Your task to perform on an android device: toggle pop-ups in chrome Image 0: 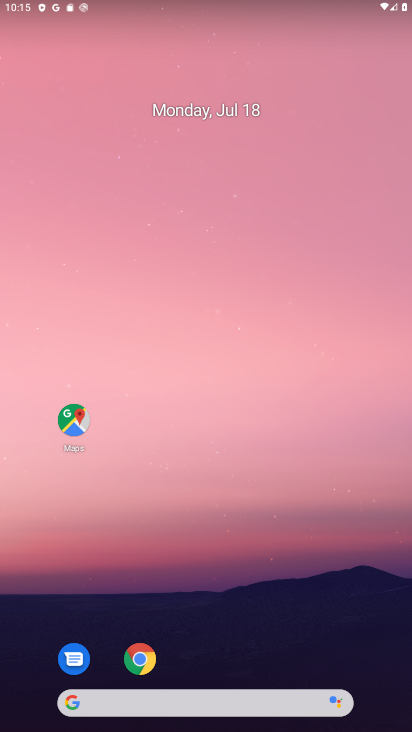
Step 0: click (139, 663)
Your task to perform on an android device: toggle pop-ups in chrome Image 1: 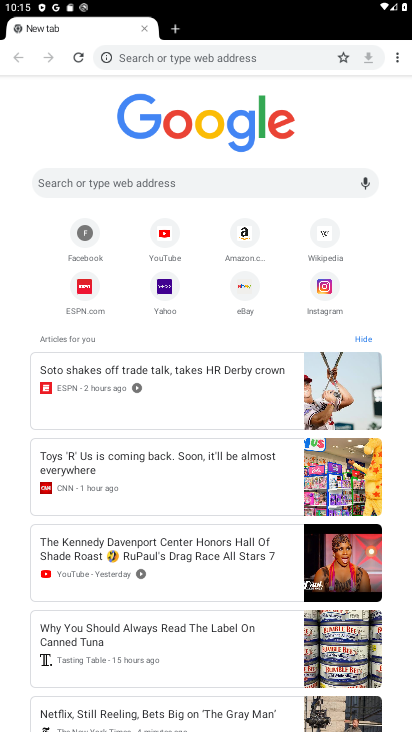
Step 1: click (399, 53)
Your task to perform on an android device: toggle pop-ups in chrome Image 2: 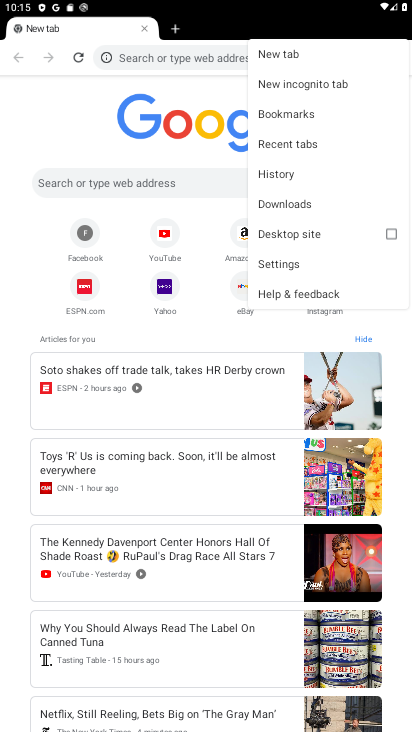
Step 2: click (283, 263)
Your task to perform on an android device: toggle pop-ups in chrome Image 3: 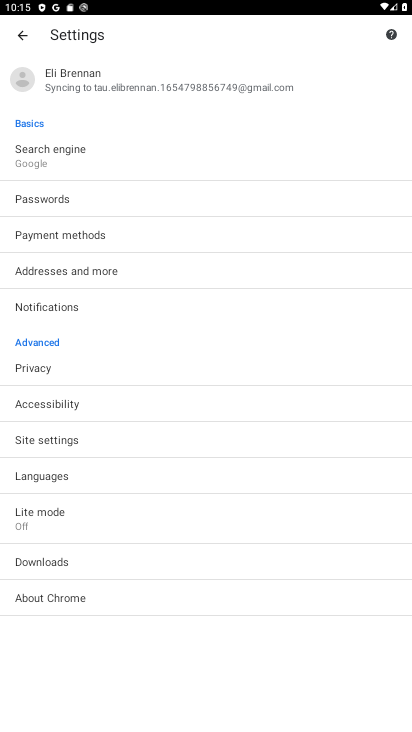
Step 3: click (72, 443)
Your task to perform on an android device: toggle pop-ups in chrome Image 4: 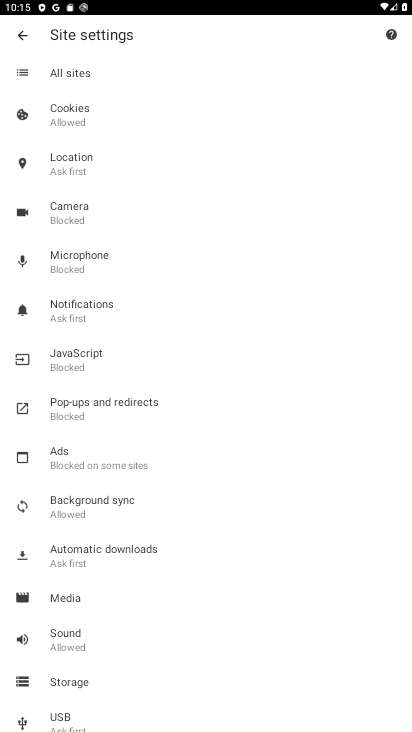
Step 4: click (91, 408)
Your task to perform on an android device: toggle pop-ups in chrome Image 5: 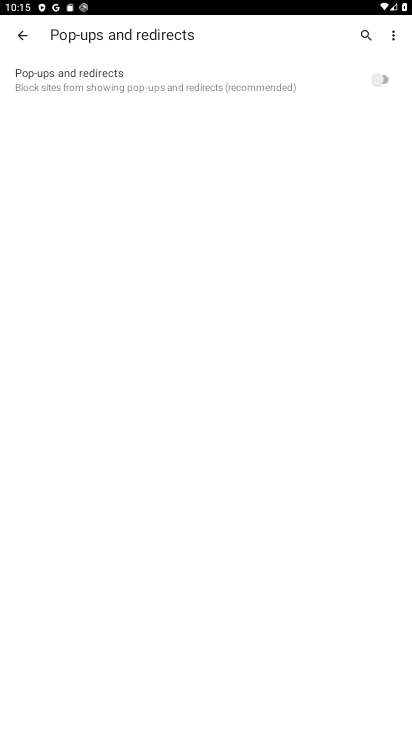
Step 5: click (385, 78)
Your task to perform on an android device: toggle pop-ups in chrome Image 6: 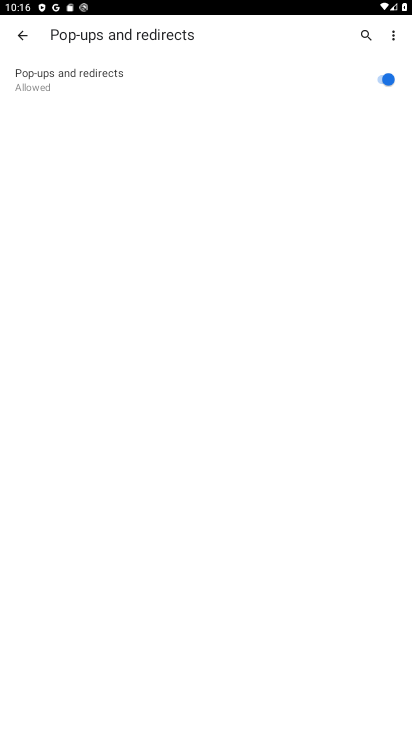
Step 6: task complete